Your task to perform on an android device: Open the web browser Image 0: 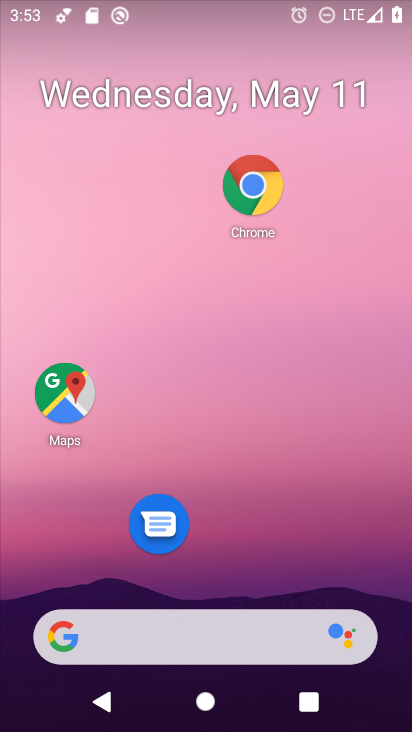
Step 0: click (269, 176)
Your task to perform on an android device: Open the web browser Image 1: 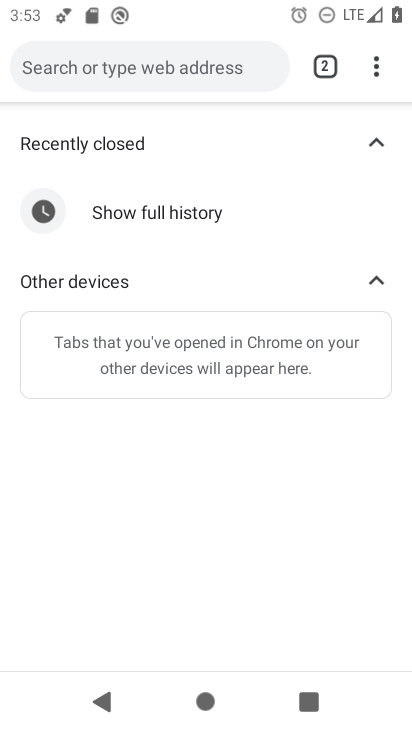
Step 1: click (232, 66)
Your task to perform on an android device: Open the web browser Image 2: 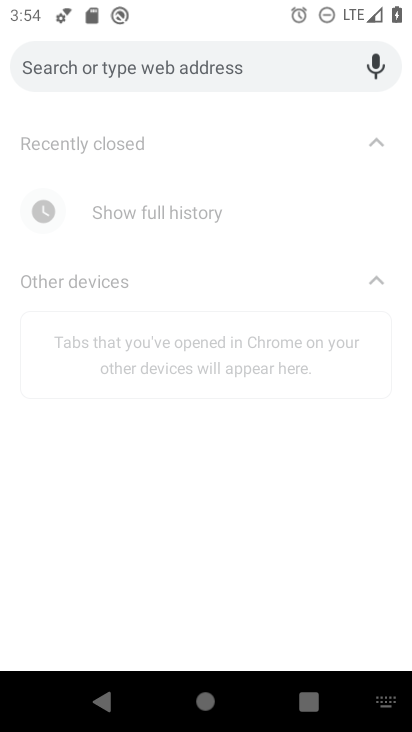
Step 2: task complete